Your task to perform on an android device: Search for "sony triple a" on target.com, select the first entry, add it to the cart, then select checkout. Image 0: 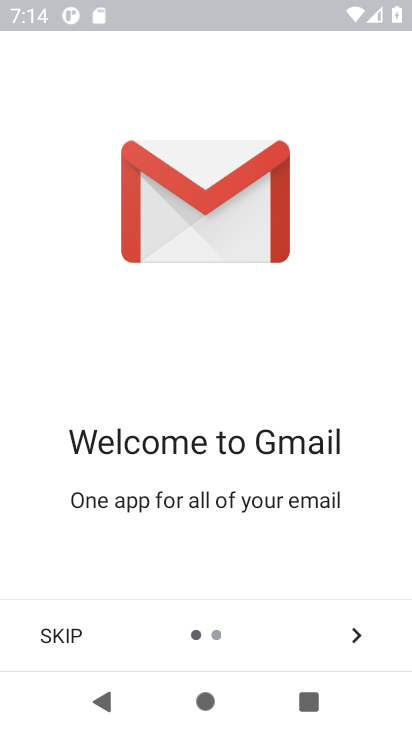
Step 0: press home button
Your task to perform on an android device: Search for "sony triple a" on target.com, select the first entry, add it to the cart, then select checkout. Image 1: 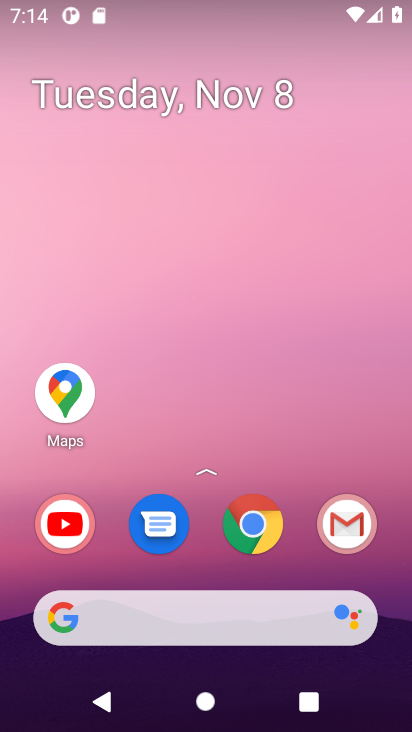
Step 1: click (253, 528)
Your task to perform on an android device: Search for "sony triple a" on target.com, select the first entry, add it to the cart, then select checkout. Image 2: 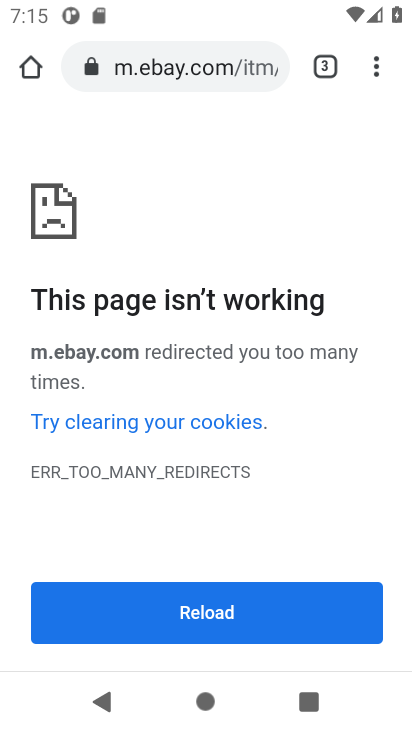
Step 2: click (170, 64)
Your task to perform on an android device: Search for "sony triple a" on target.com, select the first entry, add it to the cart, then select checkout. Image 3: 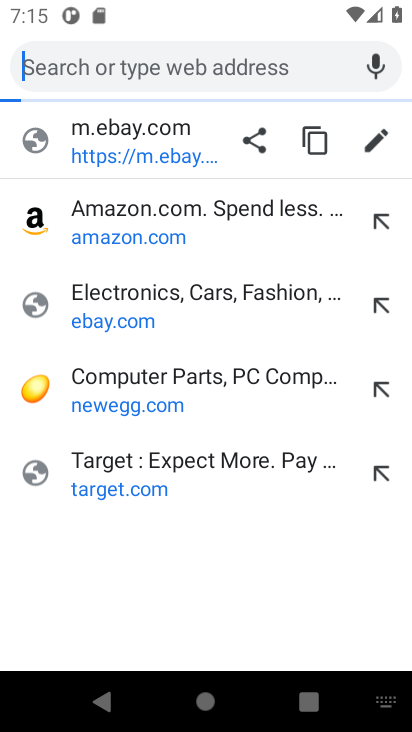
Step 3: click (115, 487)
Your task to perform on an android device: Search for "sony triple a" on target.com, select the first entry, add it to the cart, then select checkout. Image 4: 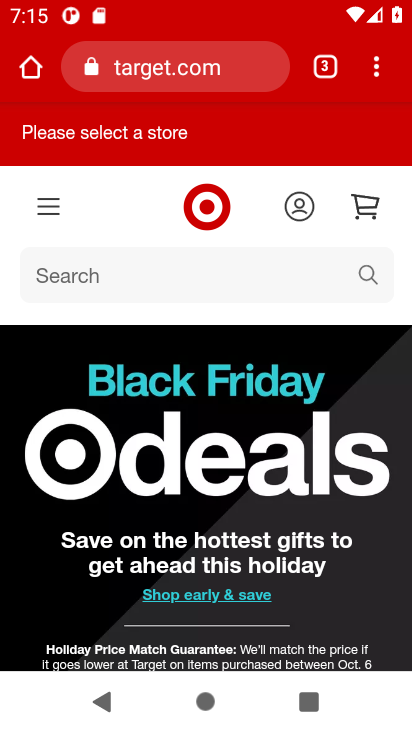
Step 4: click (357, 272)
Your task to perform on an android device: Search for "sony triple a" on target.com, select the first entry, add it to the cart, then select checkout. Image 5: 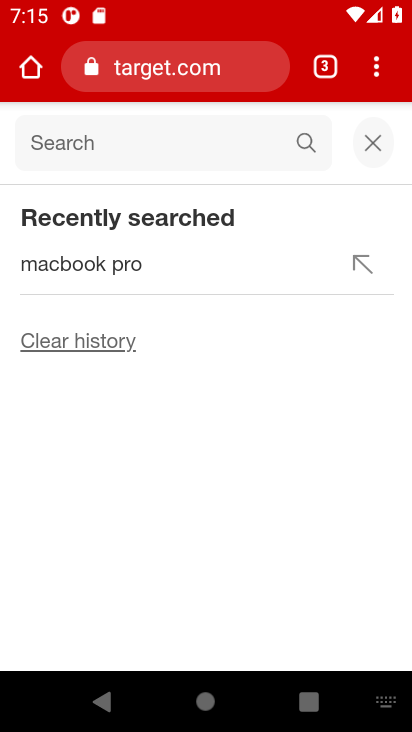
Step 5: type "sony triple a"
Your task to perform on an android device: Search for "sony triple a" on target.com, select the first entry, add it to the cart, then select checkout. Image 6: 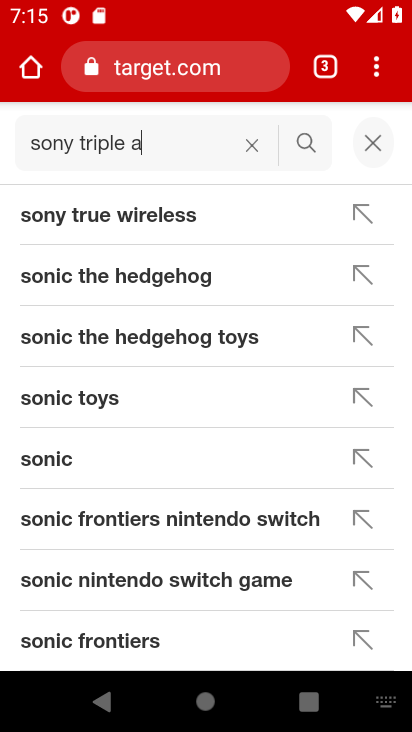
Step 6: click (309, 142)
Your task to perform on an android device: Search for "sony triple a" on target.com, select the first entry, add it to the cart, then select checkout. Image 7: 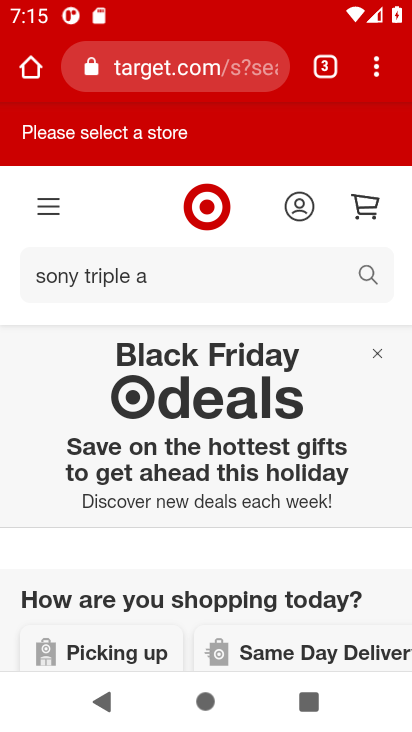
Step 7: task complete